Your task to perform on an android device: turn off smart reply in the gmail app Image 0: 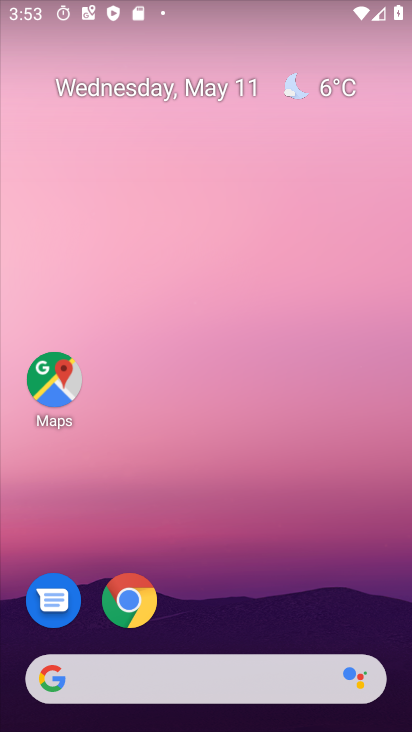
Step 0: drag from (363, 698) to (151, 74)
Your task to perform on an android device: turn off smart reply in the gmail app Image 1: 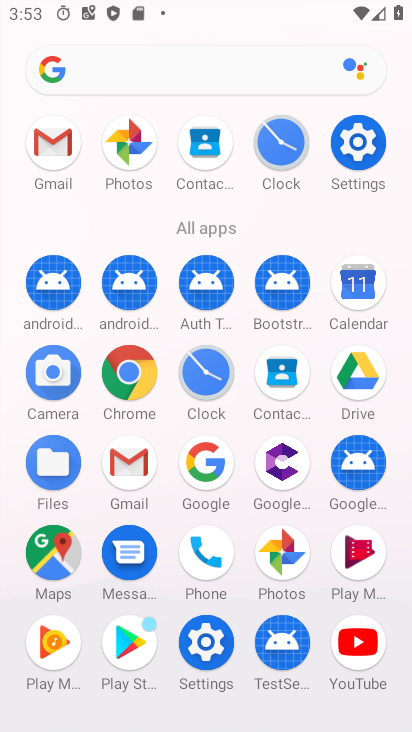
Step 1: click (110, 451)
Your task to perform on an android device: turn off smart reply in the gmail app Image 2: 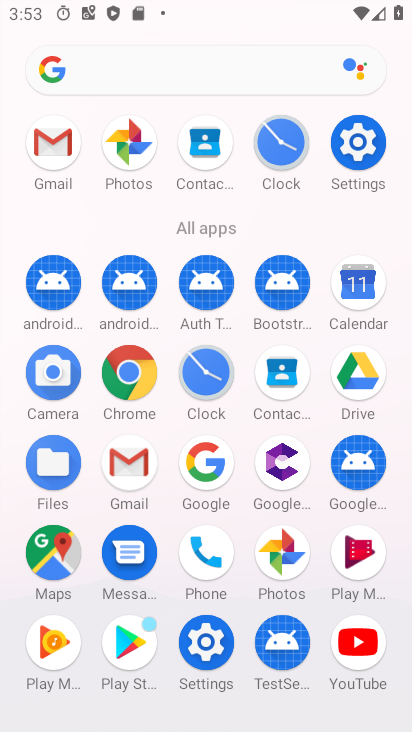
Step 2: click (110, 451)
Your task to perform on an android device: turn off smart reply in the gmail app Image 3: 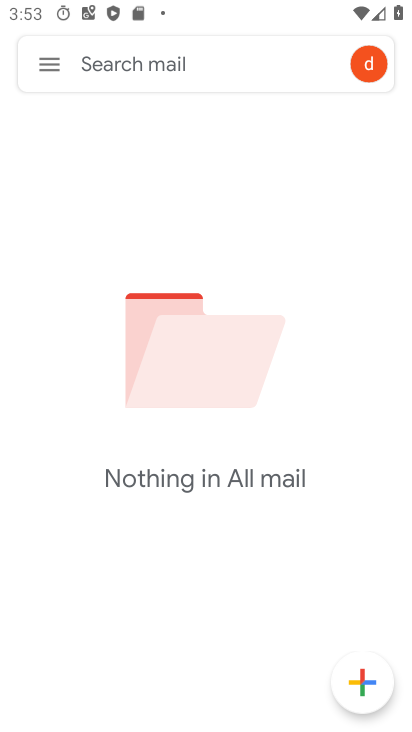
Step 3: click (47, 59)
Your task to perform on an android device: turn off smart reply in the gmail app Image 4: 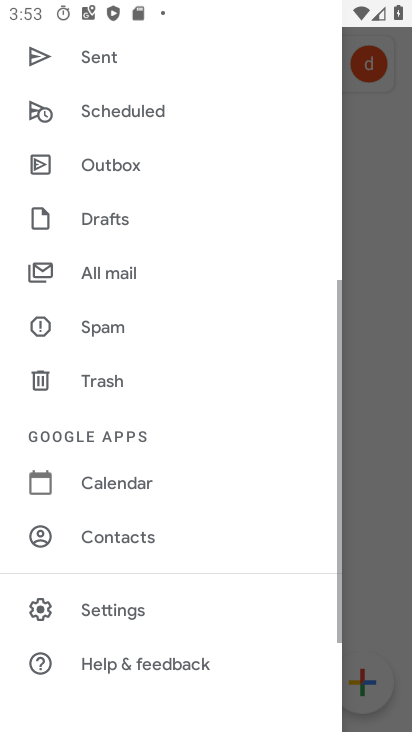
Step 4: drag from (104, 598) to (132, 214)
Your task to perform on an android device: turn off smart reply in the gmail app Image 5: 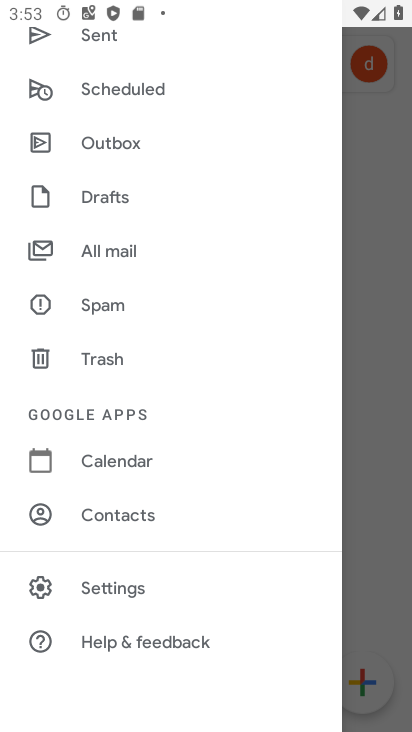
Step 5: click (108, 579)
Your task to perform on an android device: turn off smart reply in the gmail app Image 6: 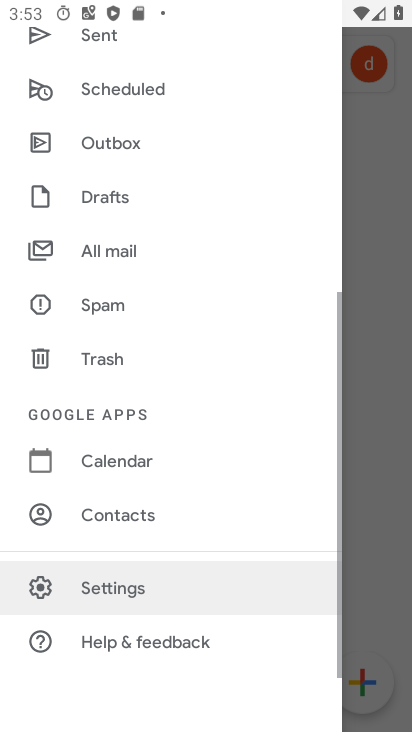
Step 6: click (107, 586)
Your task to perform on an android device: turn off smart reply in the gmail app Image 7: 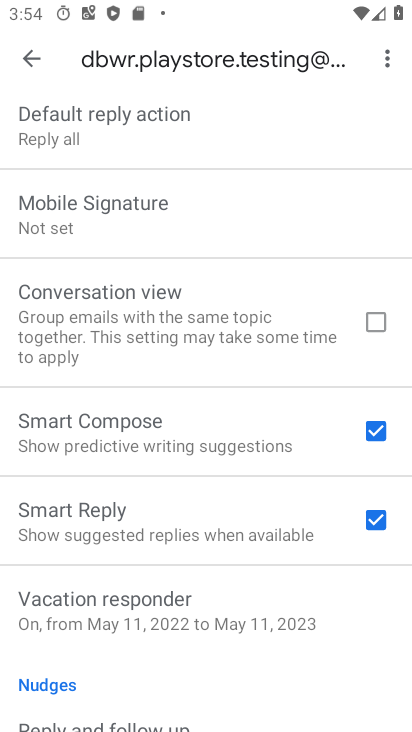
Step 7: click (168, 515)
Your task to perform on an android device: turn off smart reply in the gmail app Image 8: 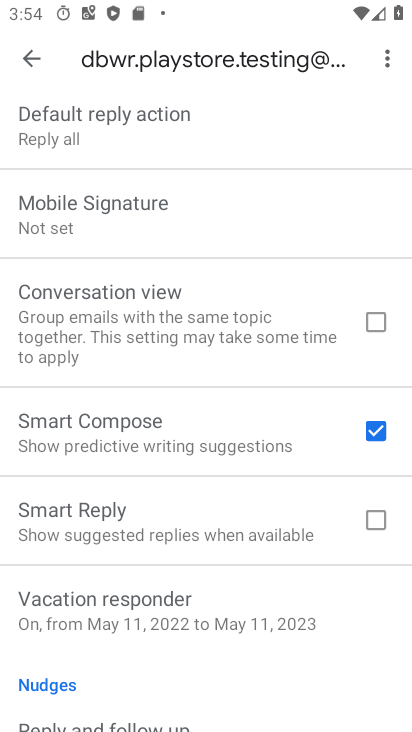
Step 8: task complete